Your task to perform on an android device: Do I have any events today? Image 0: 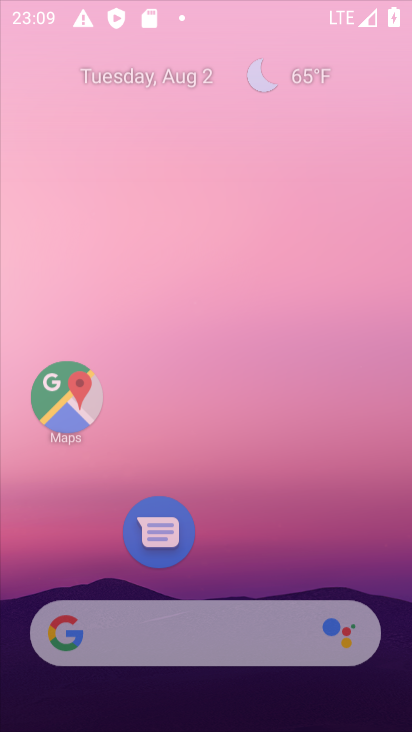
Step 0: click (202, 256)
Your task to perform on an android device: Do I have any events today? Image 1: 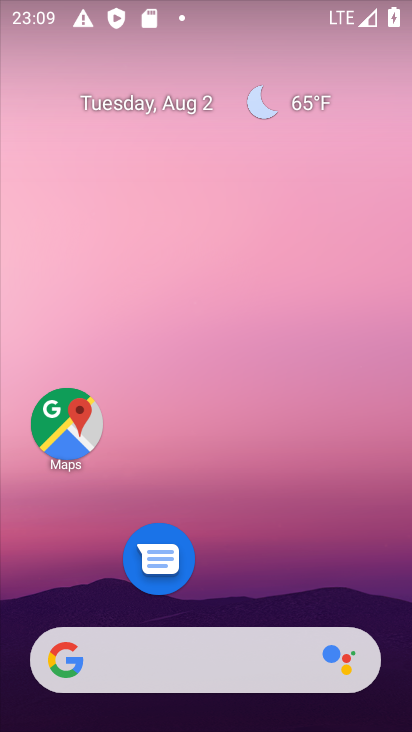
Step 1: drag from (191, 540) to (153, 182)
Your task to perform on an android device: Do I have any events today? Image 2: 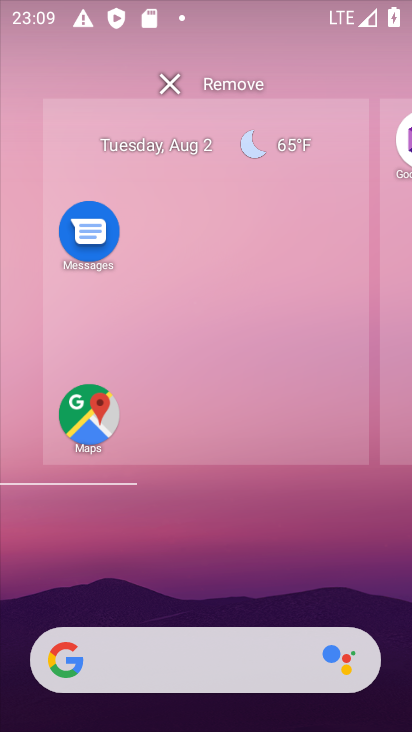
Step 2: drag from (215, 367) to (191, 194)
Your task to perform on an android device: Do I have any events today? Image 3: 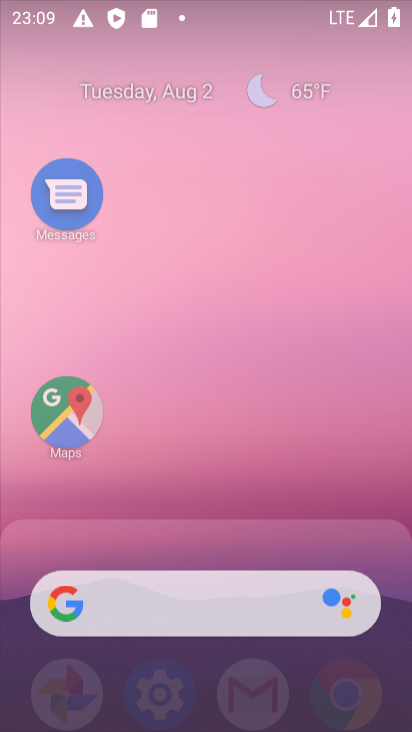
Step 3: drag from (181, 538) to (155, 269)
Your task to perform on an android device: Do I have any events today? Image 4: 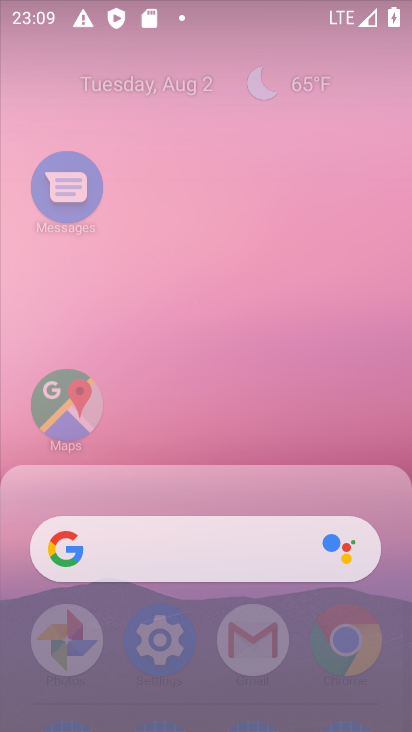
Step 4: drag from (215, 524) to (187, 148)
Your task to perform on an android device: Do I have any events today? Image 5: 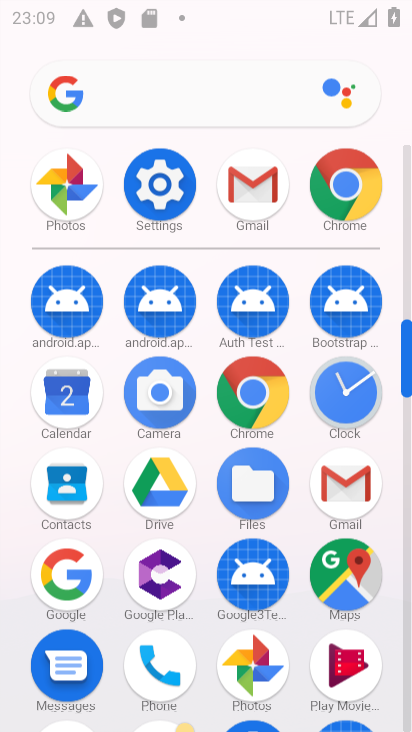
Step 5: drag from (248, 299) to (237, 113)
Your task to perform on an android device: Do I have any events today? Image 6: 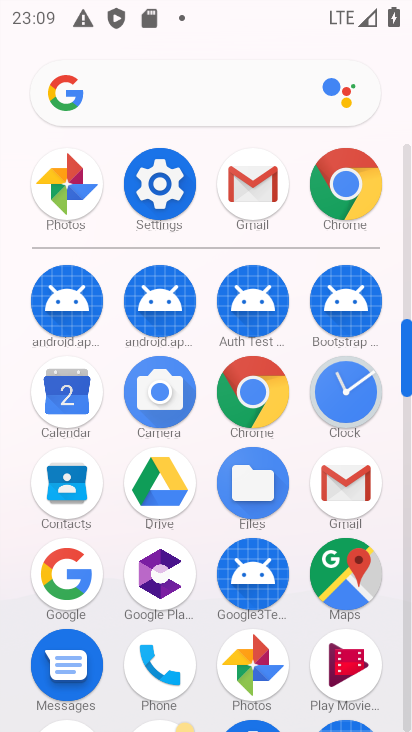
Step 6: drag from (284, 481) to (238, 150)
Your task to perform on an android device: Do I have any events today? Image 7: 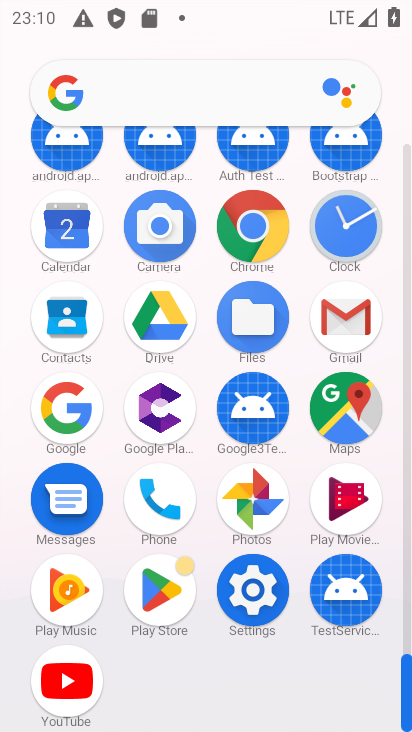
Step 7: drag from (307, 272) to (339, 402)
Your task to perform on an android device: Do I have any events today? Image 8: 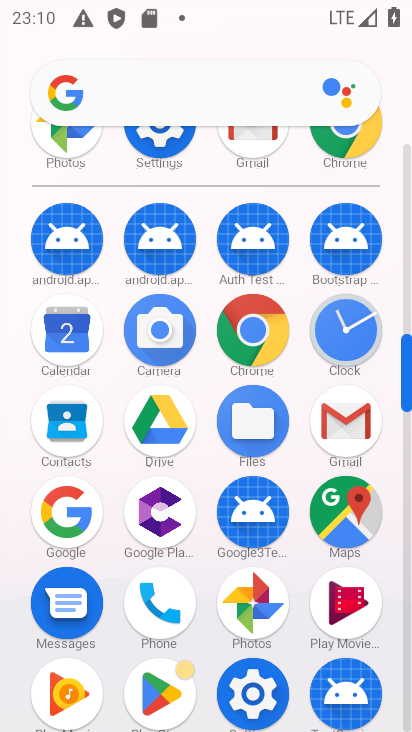
Step 8: drag from (317, 230) to (307, 527)
Your task to perform on an android device: Do I have any events today? Image 9: 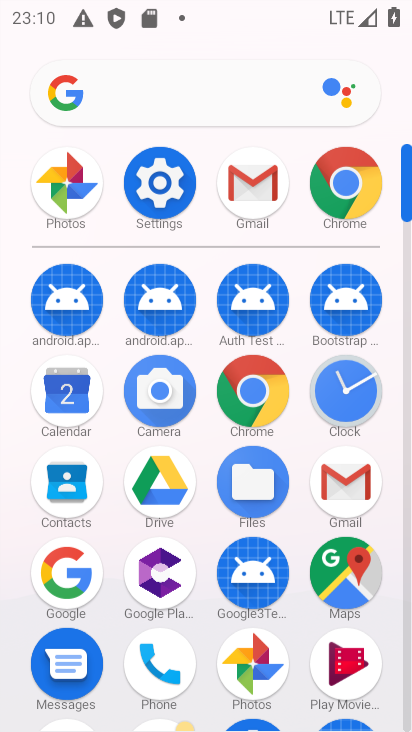
Step 9: drag from (271, 232) to (288, 488)
Your task to perform on an android device: Do I have any events today? Image 10: 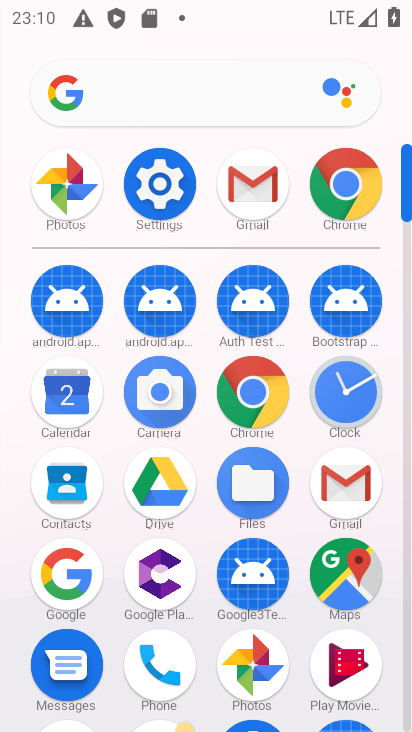
Step 10: drag from (285, 431) to (293, 370)
Your task to perform on an android device: Do I have any events today? Image 11: 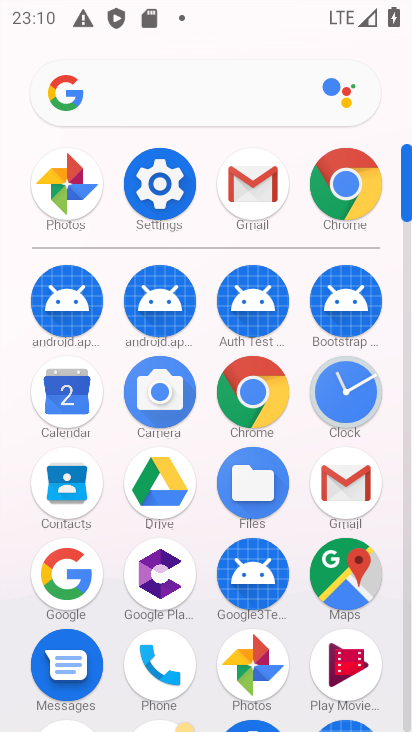
Step 11: drag from (288, 661) to (303, 318)
Your task to perform on an android device: Do I have any events today? Image 12: 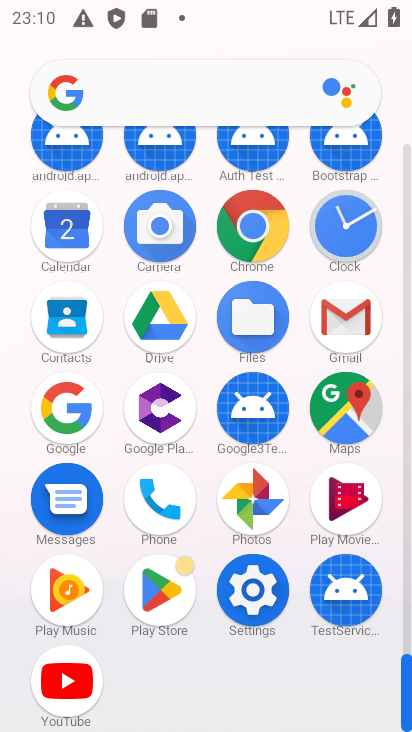
Step 12: drag from (219, 286) to (240, 566)
Your task to perform on an android device: Do I have any events today? Image 13: 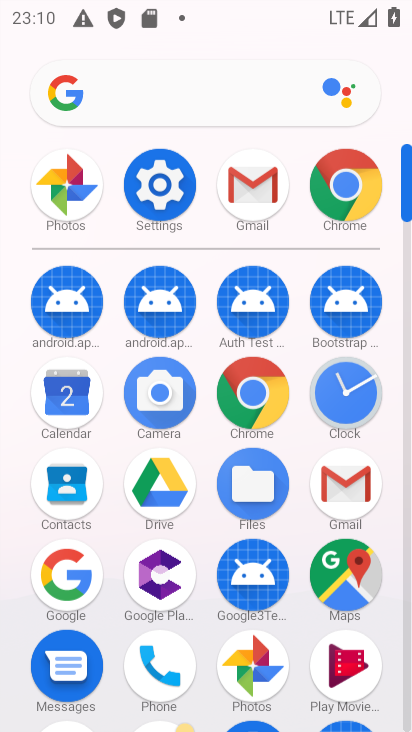
Step 13: drag from (242, 385) to (242, 598)
Your task to perform on an android device: Do I have any events today? Image 14: 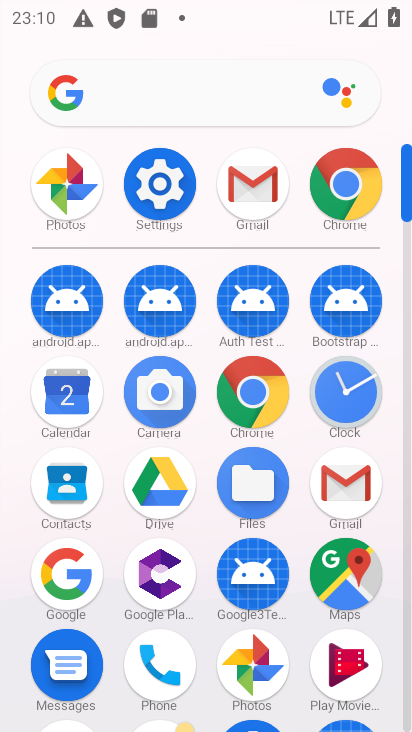
Step 14: click (66, 409)
Your task to perform on an android device: Do I have any events today? Image 15: 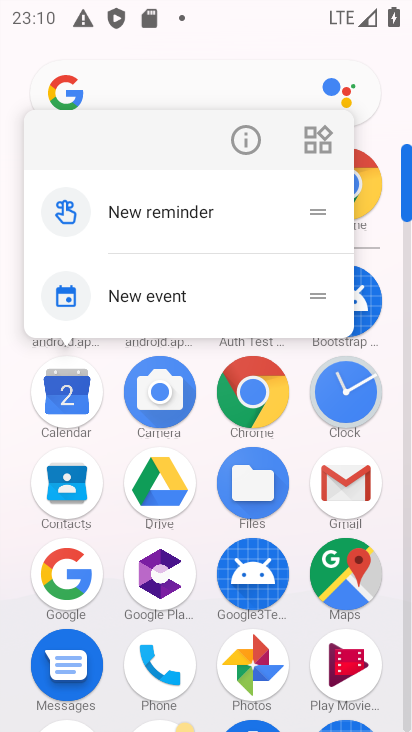
Step 15: click (66, 409)
Your task to perform on an android device: Do I have any events today? Image 16: 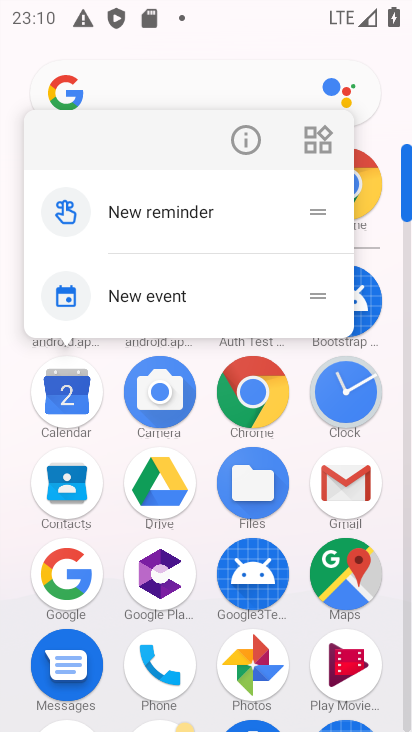
Step 16: click (63, 400)
Your task to perform on an android device: Do I have any events today? Image 17: 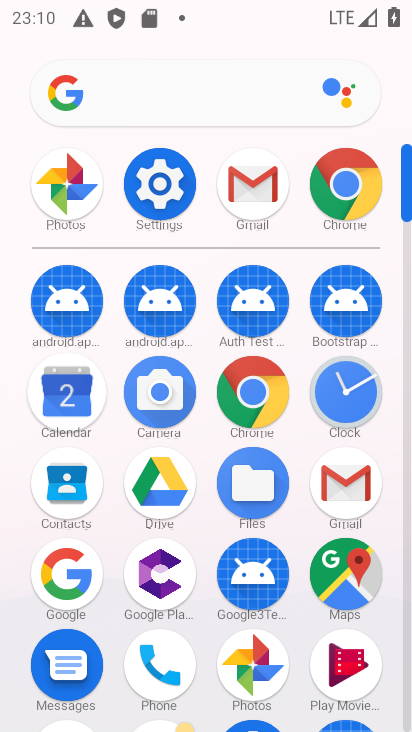
Step 17: click (63, 400)
Your task to perform on an android device: Do I have any events today? Image 18: 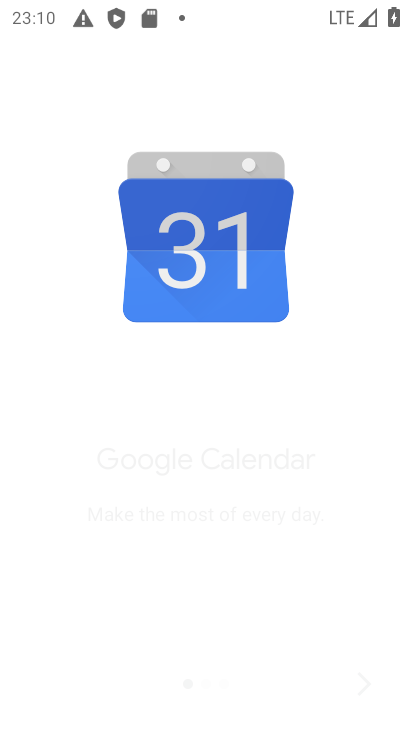
Step 18: click (132, 296)
Your task to perform on an android device: Do I have any events today? Image 19: 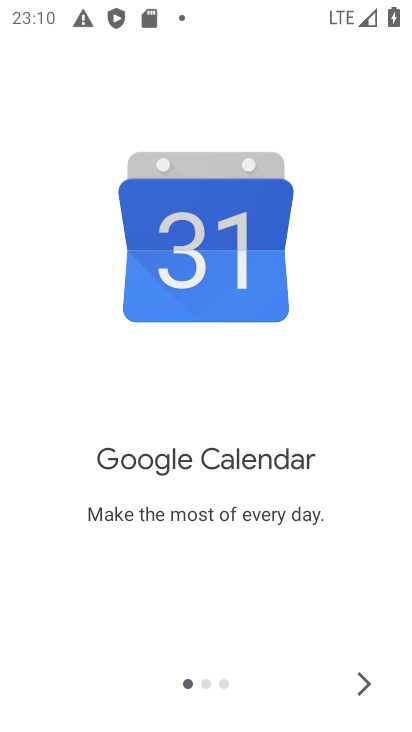
Step 19: click (140, 284)
Your task to perform on an android device: Do I have any events today? Image 20: 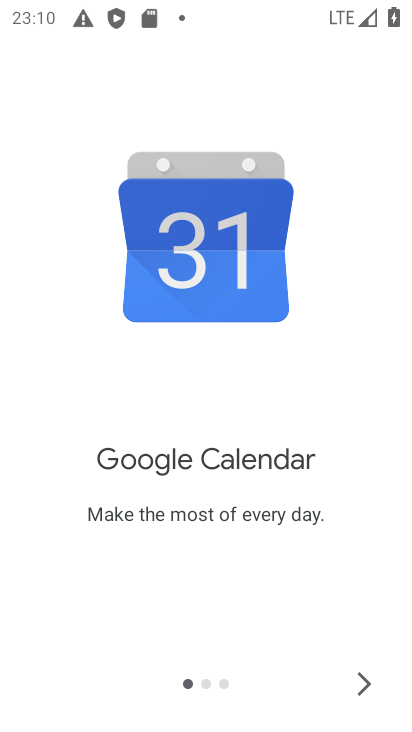
Step 20: click (363, 674)
Your task to perform on an android device: Do I have any events today? Image 21: 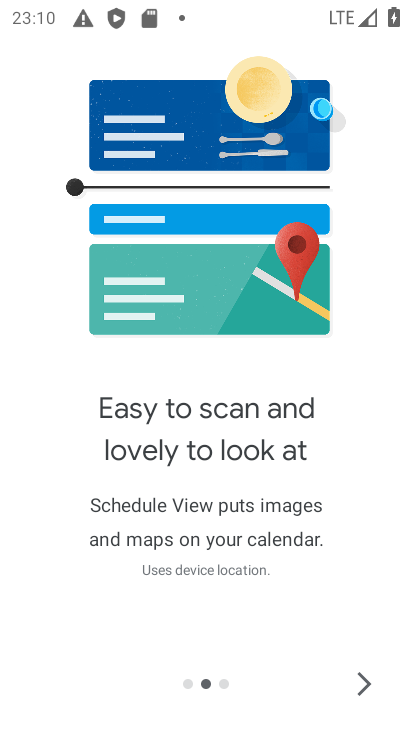
Step 21: click (355, 686)
Your task to perform on an android device: Do I have any events today? Image 22: 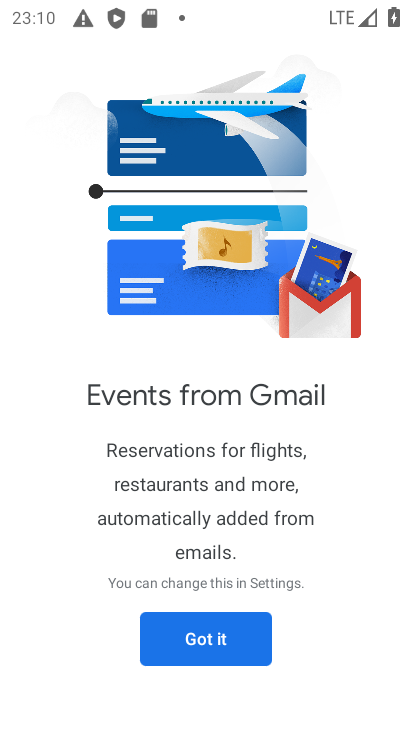
Step 22: click (361, 684)
Your task to perform on an android device: Do I have any events today? Image 23: 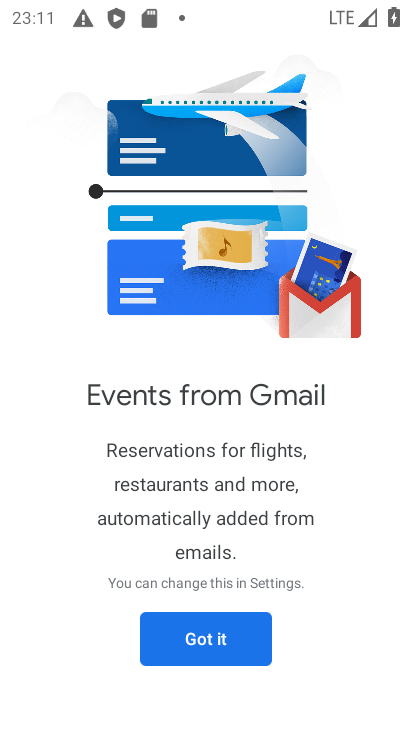
Step 23: click (202, 637)
Your task to perform on an android device: Do I have any events today? Image 24: 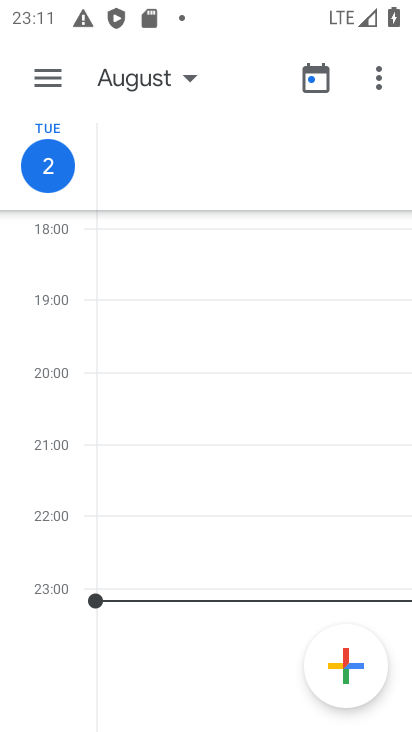
Step 24: click (193, 73)
Your task to perform on an android device: Do I have any events today? Image 25: 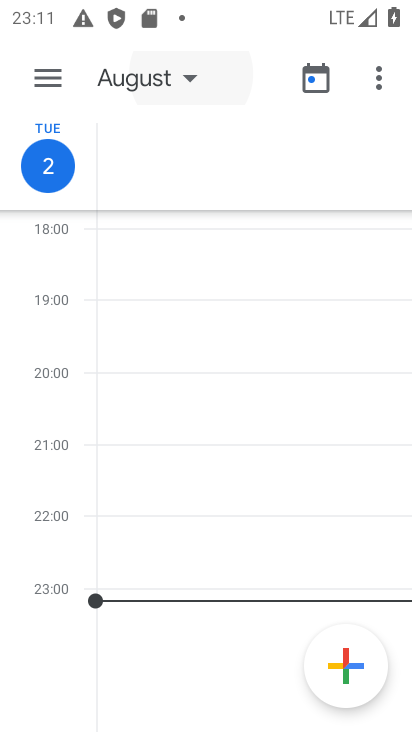
Step 25: click (193, 73)
Your task to perform on an android device: Do I have any events today? Image 26: 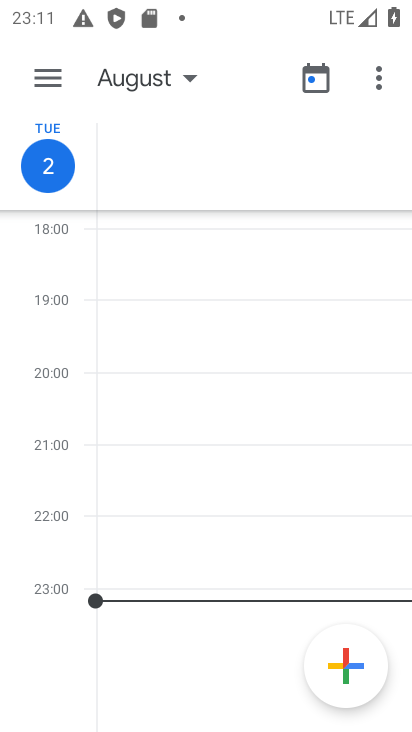
Step 26: click (190, 80)
Your task to perform on an android device: Do I have any events today? Image 27: 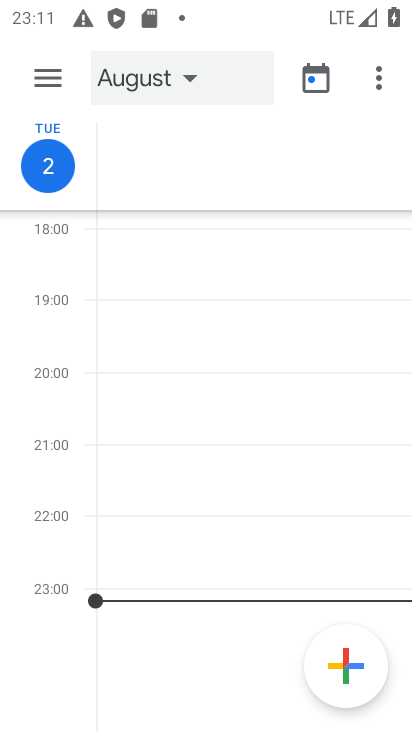
Step 27: click (194, 78)
Your task to perform on an android device: Do I have any events today? Image 28: 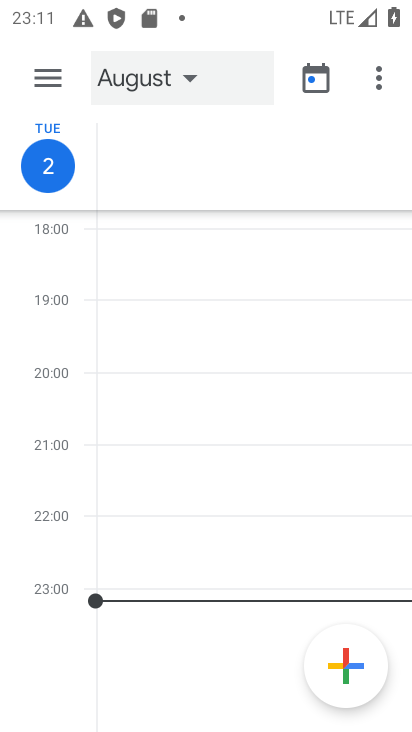
Step 28: click (188, 69)
Your task to perform on an android device: Do I have any events today? Image 29: 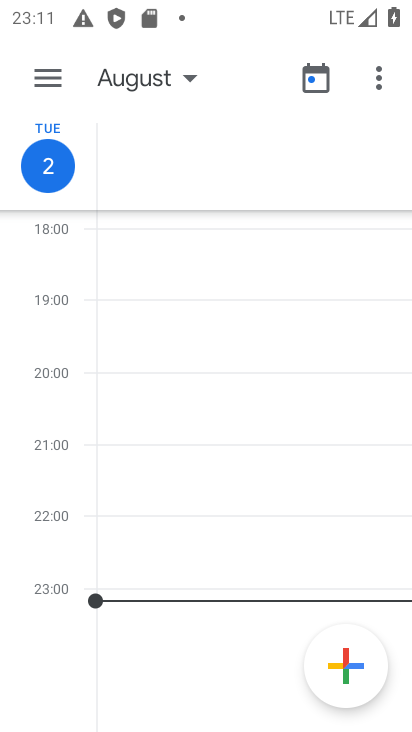
Step 29: click (185, 81)
Your task to perform on an android device: Do I have any events today? Image 30: 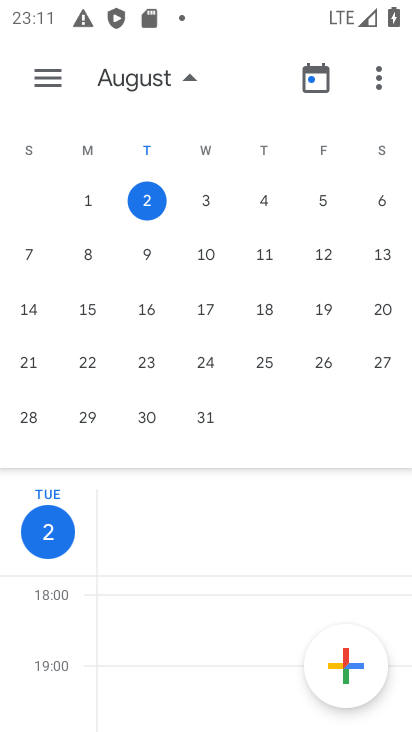
Step 30: task complete